Your task to perform on an android device: What's the news about the US? Image 0: 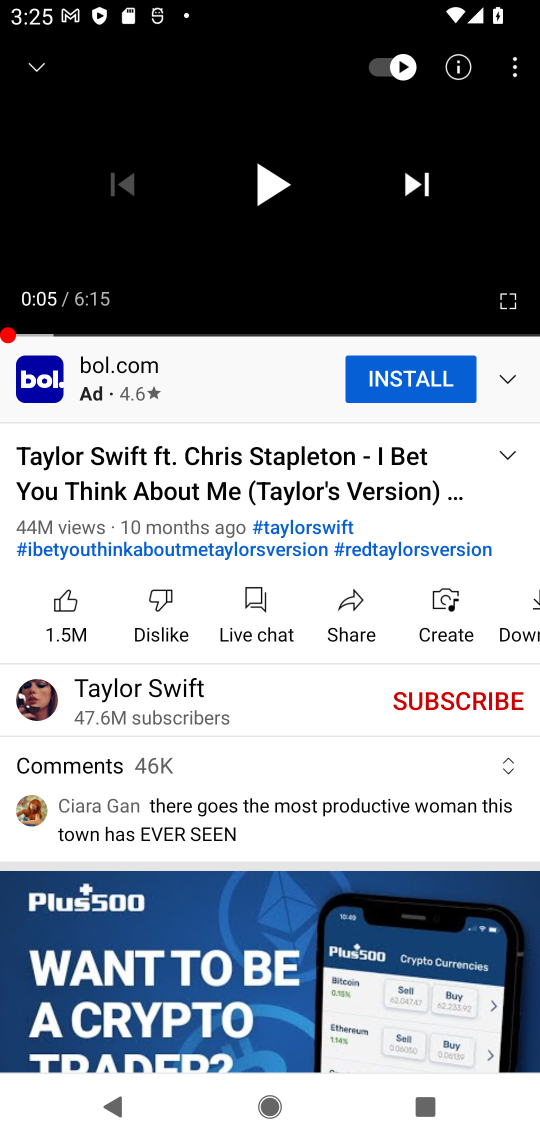
Step 0: press home button
Your task to perform on an android device: What's the news about the US? Image 1: 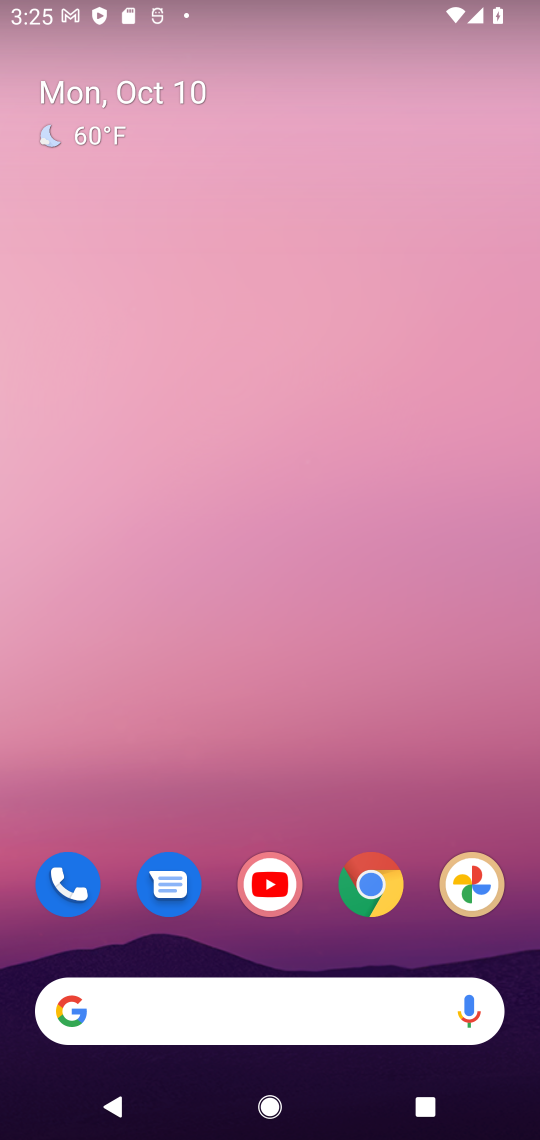
Step 1: click (248, 1007)
Your task to perform on an android device: What's the news about the US? Image 2: 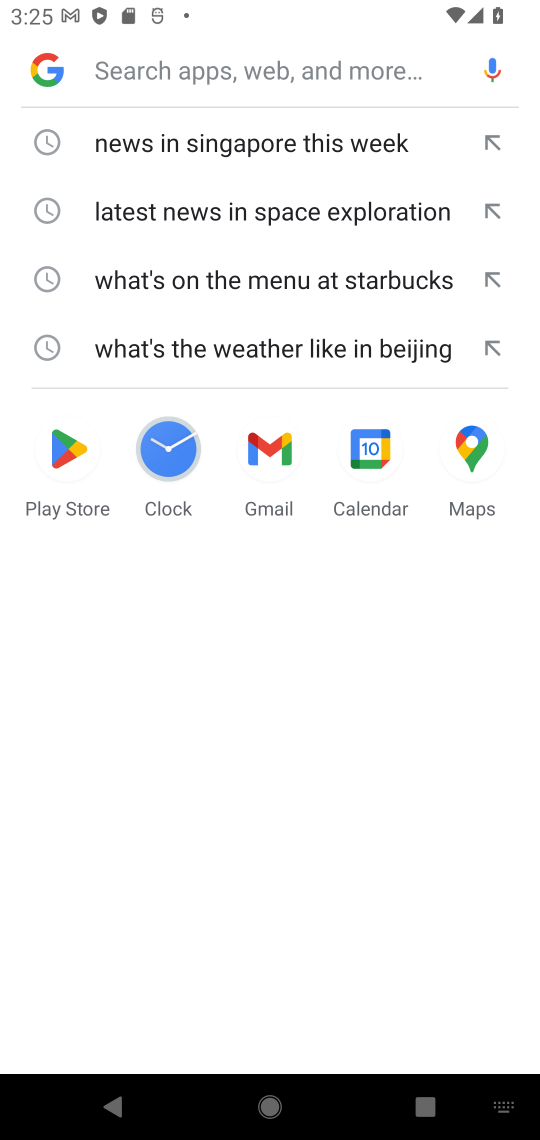
Step 2: click (192, 59)
Your task to perform on an android device: What's the news about the US? Image 3: 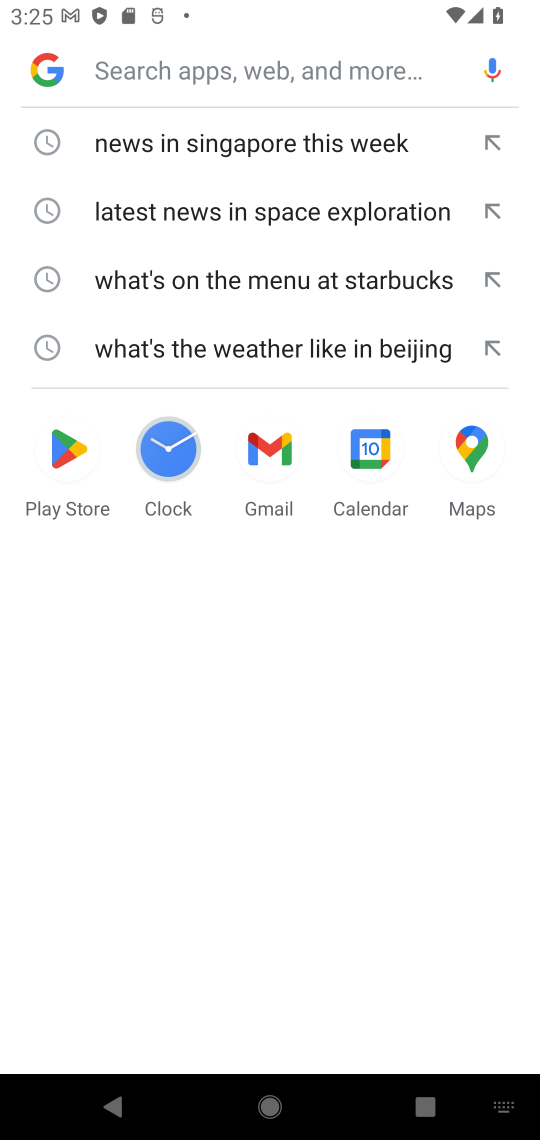
Step 3: type "What's the news about the US"
Your task to perform on an android device: What's the news about the US? Image 4: 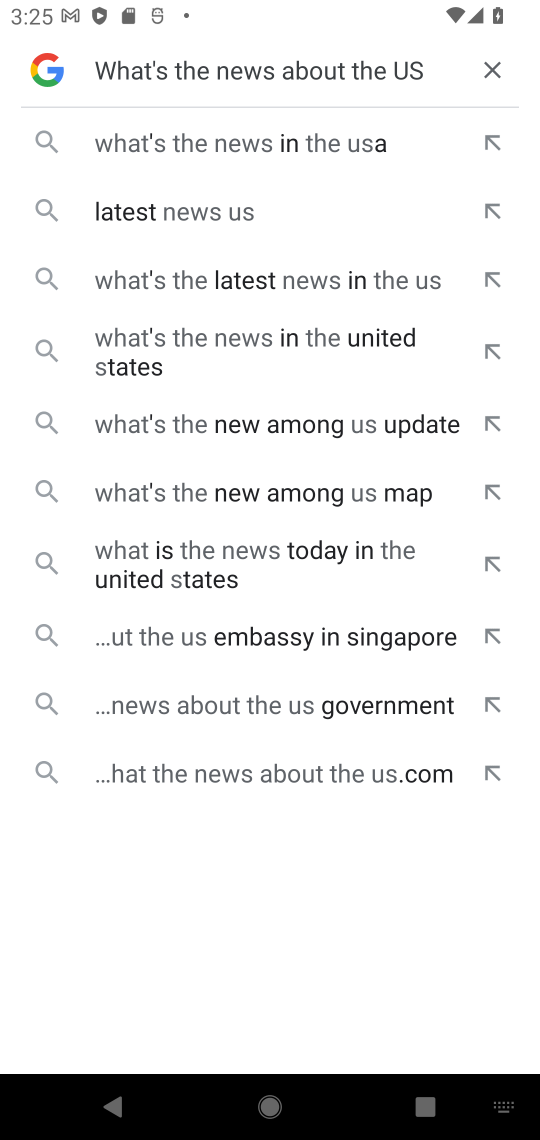
Step 4: click (178, 211)
Your task to perform on an android device: What's the news about the US? Image 5: 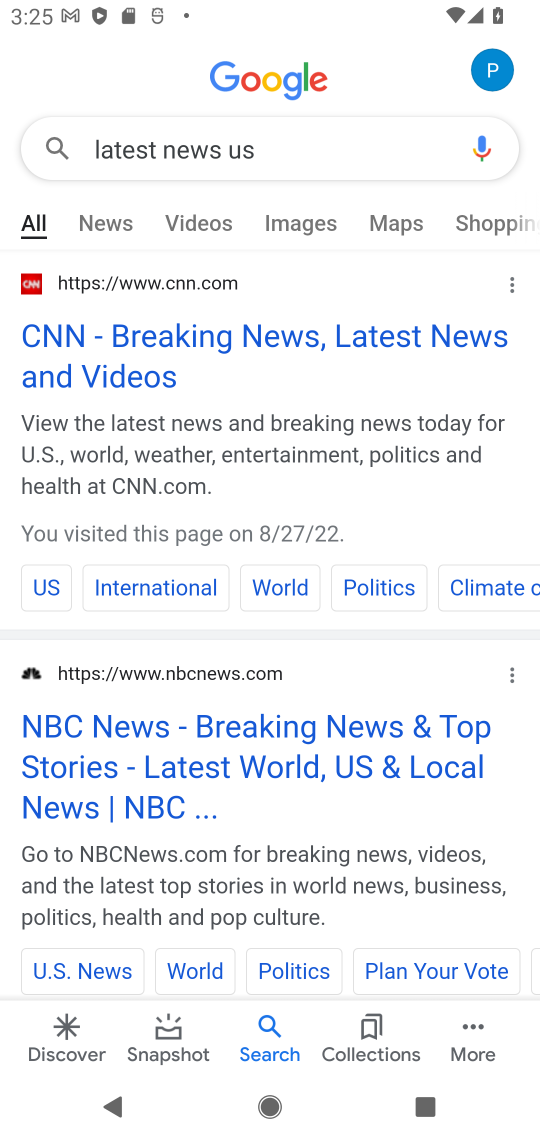
Step 5: click (144, 377)
Your task to perform on an android device: What's the news about the US? Image 6: 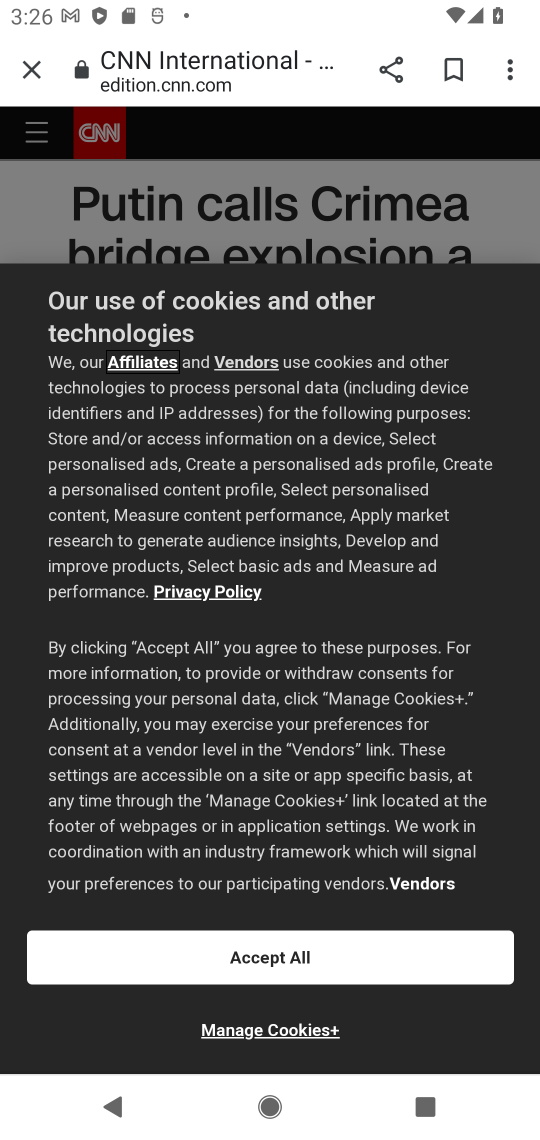
Step 6: task complete